Your task to perform on an android device: Open Google Image 0: 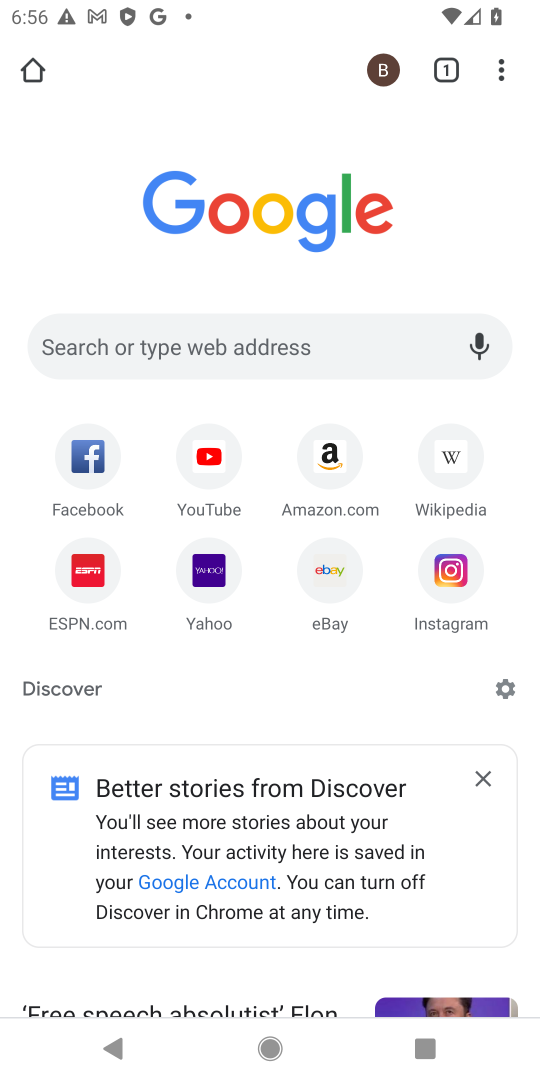
Step 0: task complete